Your task to perform on an android device: open wifi settings Image 0: 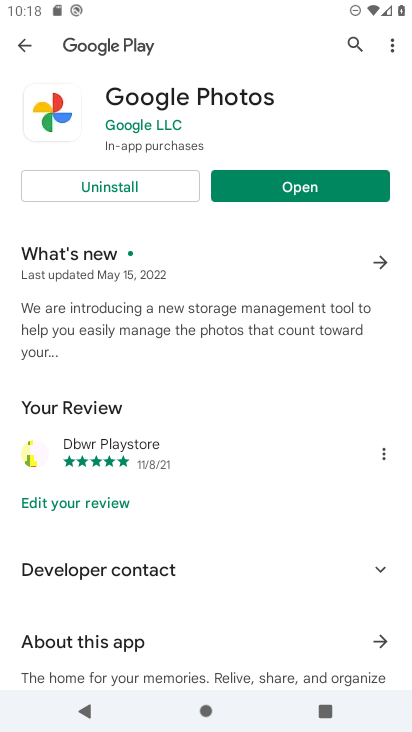
Step 0: press home button
Your task to perform on an android device: open wifi settings Image 1: 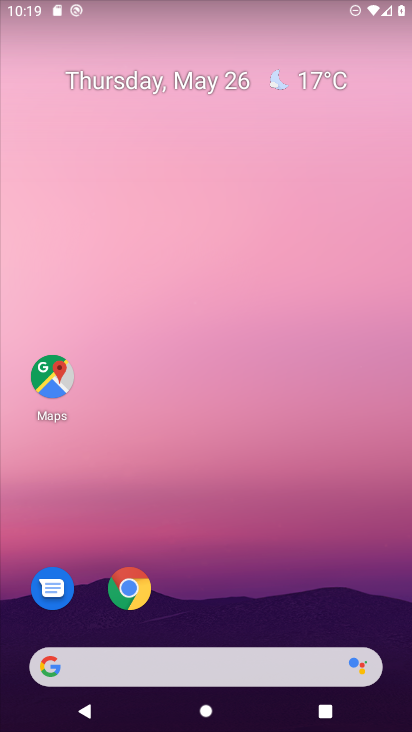
Step 1: drag from (314, 592) to (301, 68)
Your task to perform on an android device: open wifi settings Image 2: 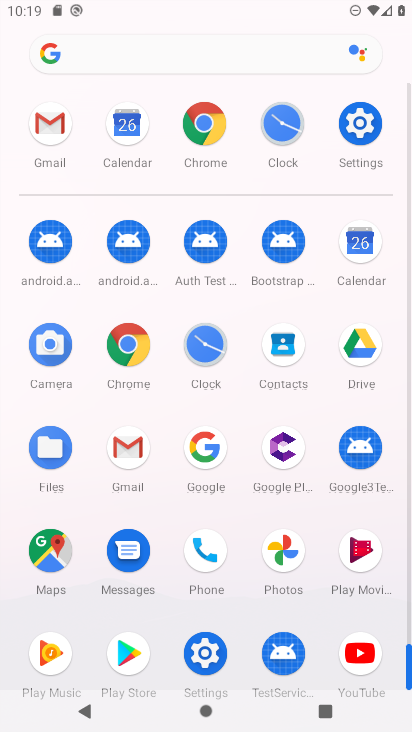
Step 2: click (204, 657)
Your task to perform on an android device: open wifi settings Image 3: 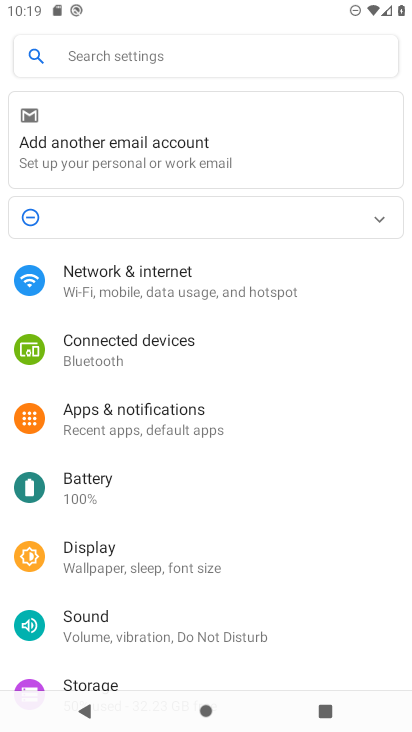
Step 3: click (134, 273)
Your task to perform on an android device: open wifi settings Image 4: 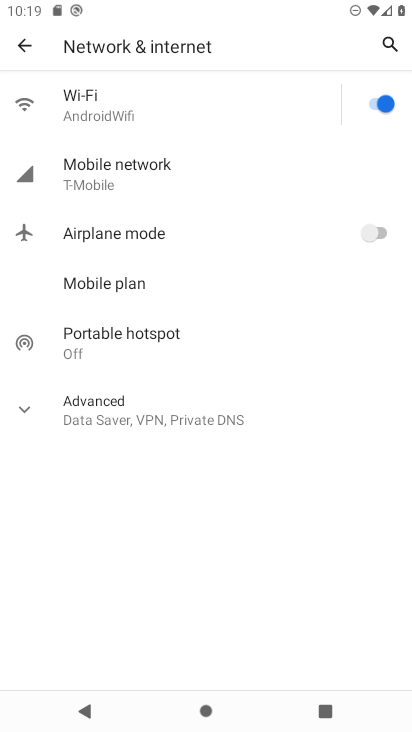
Step 4: click (72, 108)
Your task to perform on an android device: open wifi settings Image 5: 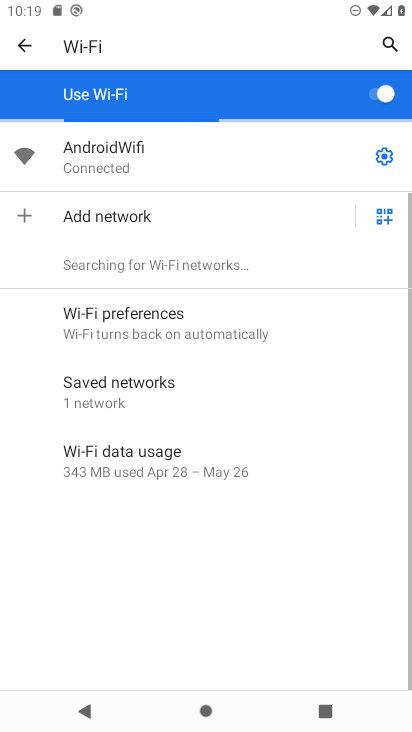
Step 5: click (384, 154)
Your task to perform on an android device: open wifi settings Image 6: 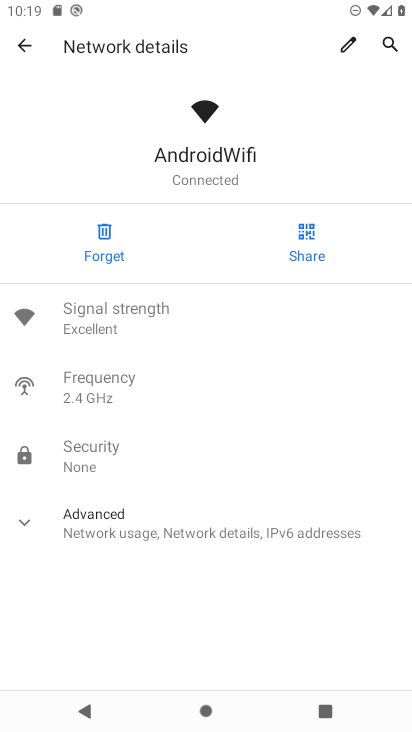
Step 6: click (23, 525)
Your task to perform on an android device: open wifi settings Image 7: 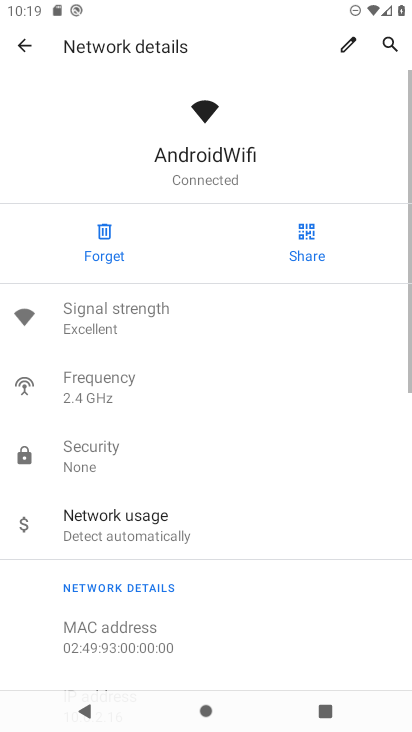
Step 7: task complete